Your task to perform on an android device: Open the map Image 0: 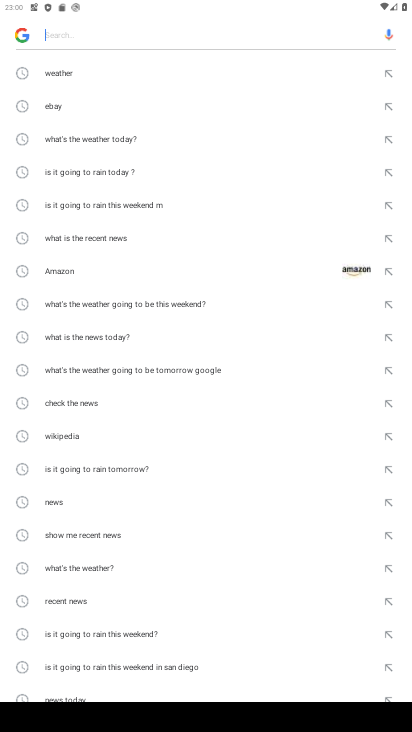
Step 0: press home button
Your task to perform on an android device: Open the map Image 1: 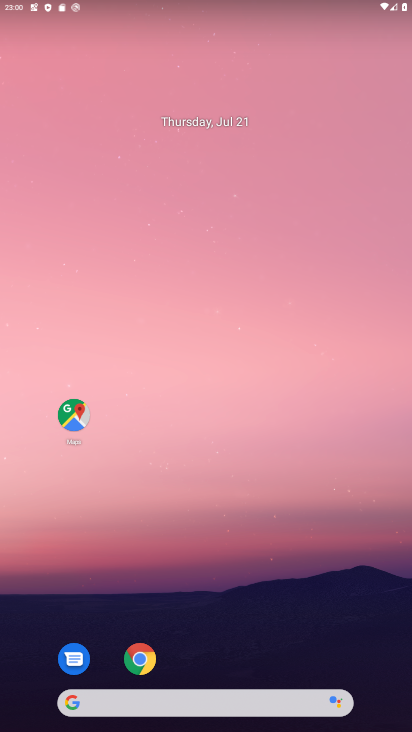
Step 1: drag from (279, 630) to (266, 84)
Your task to perform on an android device: Open the map Image 2: 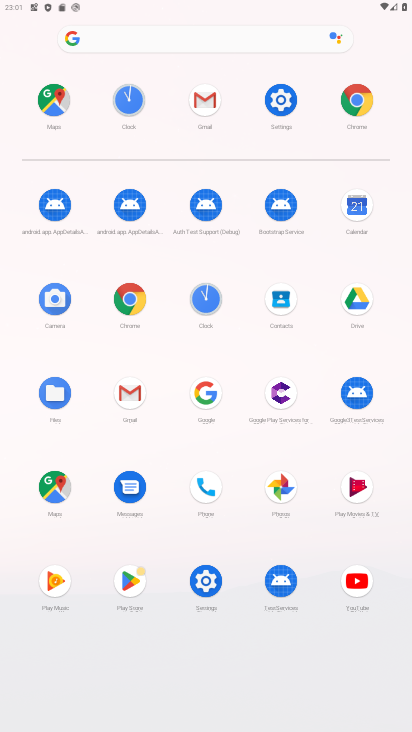
Step 2: click (53, 98)
Your task to perform on an android device: Open the map Image 3: 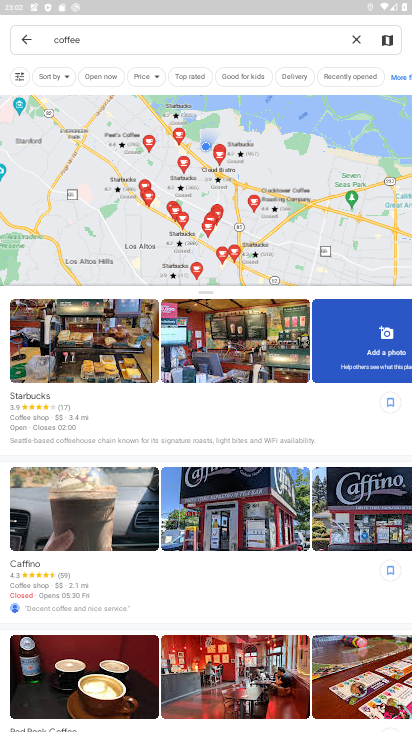
Step 3: task complete